Your task to perform on an android device: turn off javascript in the chrome app Image 0: 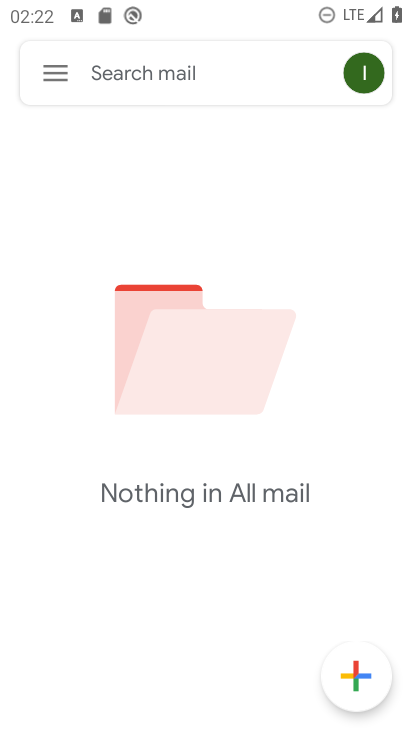
Step 0: press home button
Your task to perform on an android device: turn off javascript in the chrome app Image 1: 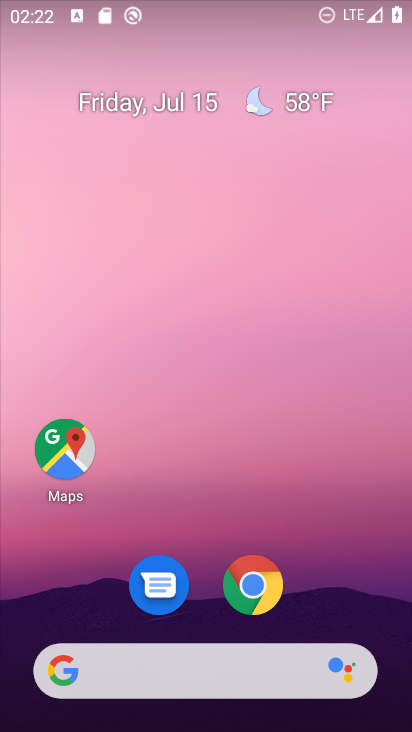
Step 1: click (268, 591)
Your task to perform on an android device: turn off javascript in the chrome app Image 2: 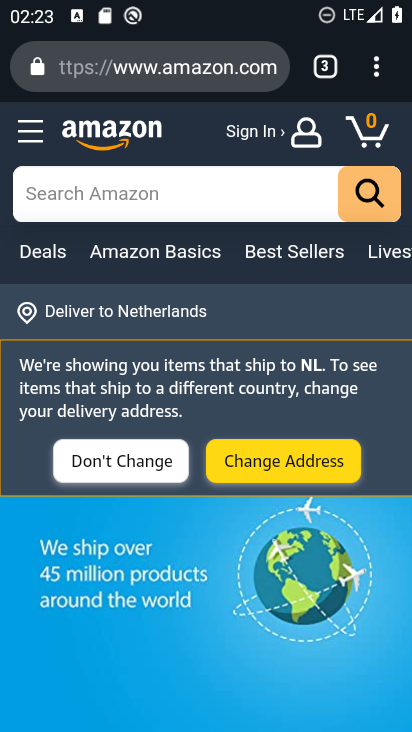
Step 2: click (374, 73)
Your task to perform on an android device: turn off javascript in the chrome app Image 3: 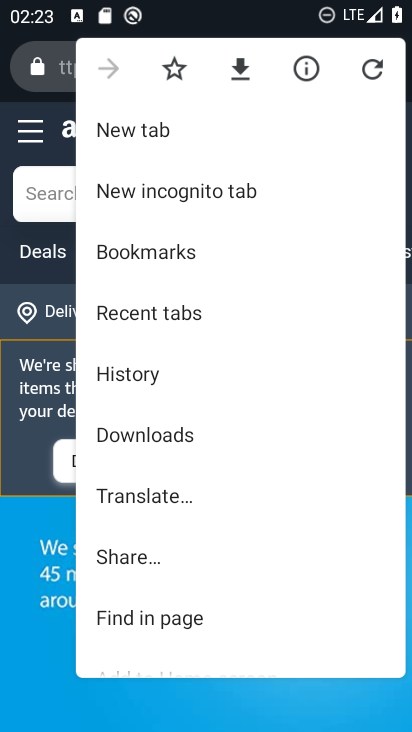
Step 3: drag from (243, 569) to (269, 159)
Your task to perform on an android device: turn off javascript in the chrome app Image 4: 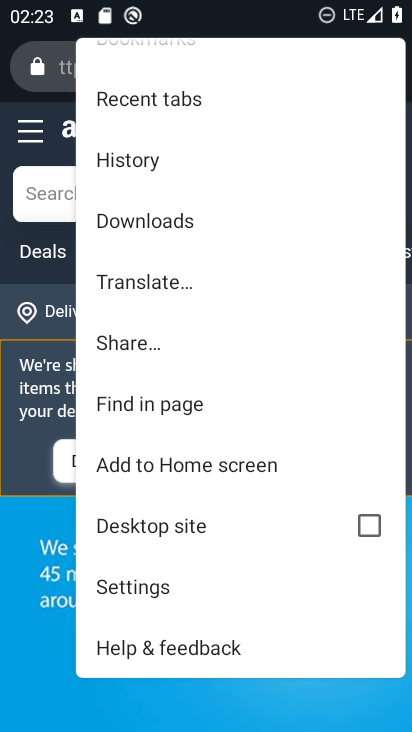
Step 4: click (147, 590)
Your task to perform on an android device: turn off javascript in the chrome app Image 5: 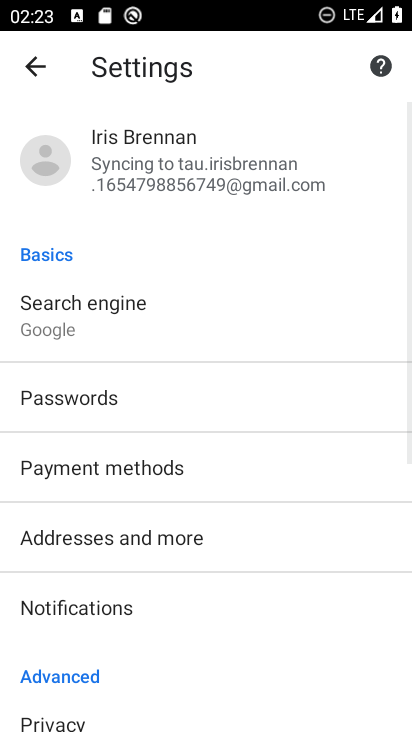
Step 5: drag from (239, 634) to (237, 253)
Your task to perform on an android device: turn off javascript in the chrome app Image 6: 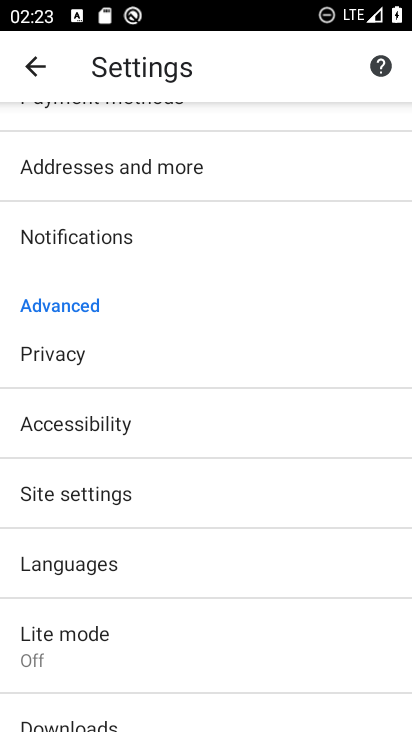
Step 6: click (94, 483)
Your task to perform on an android device: turn off javascript in the chrome app Image 7: 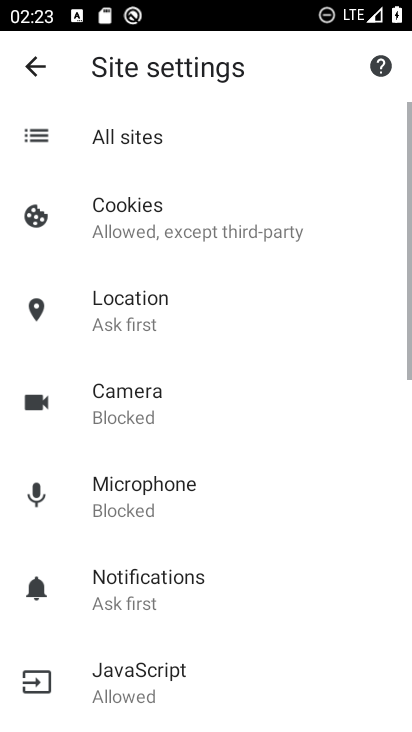
Step 7: drag from (233, 613) to (245, 364)
Your task to perform on an android device: turn off javascript in the chrome app Image 8: 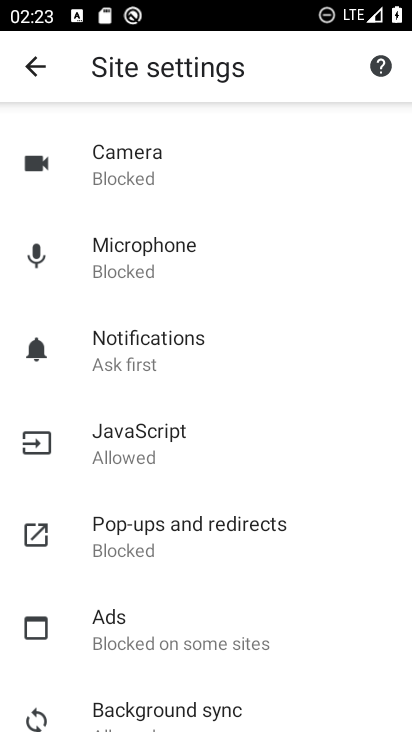
Step 8: click (172, 436)
Your task to perform on an android device: turn off javascript in the chrome app Image 9: 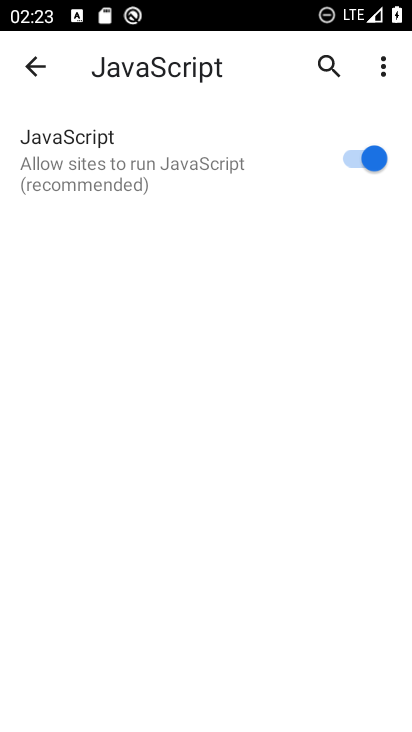
Step 9: click (362, 155)
Your task to perform on an android device: turn off javascript in the chrome app Image 10: 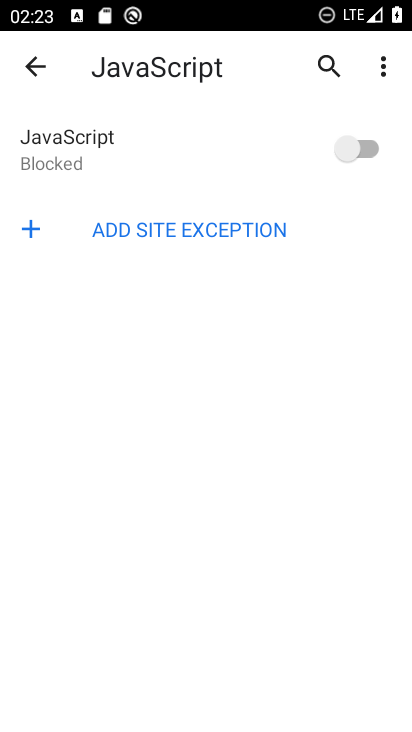
Step 10: task complete